Your task to perform on an android device: Search for sushi restaurants on Maps Image 0: 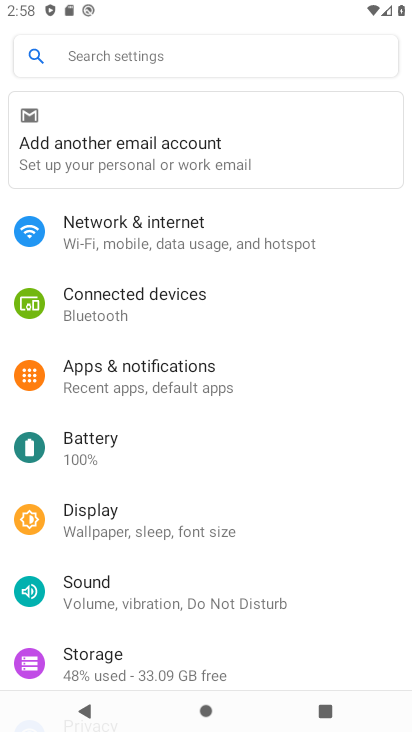
Step 0: drag from (144, 597) to (156, 295)
Your task to perform on an android device: Search for sushi restaurants on Maps Image 1: 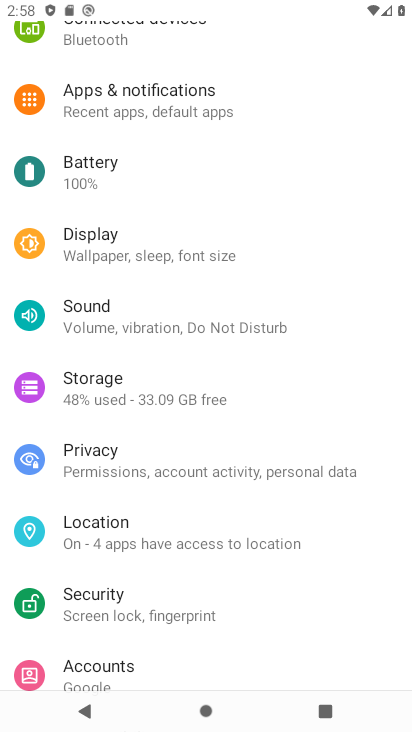
Step 1: press home button
Your task to perform on an android device: Search for sushi restaurants on Maps Image 2: 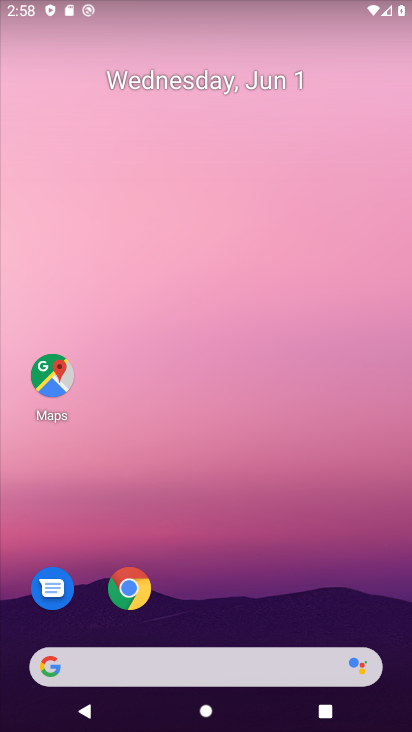
Step 2: drag from (290, 478) to (257, 119)
Your task to perform on an android device: Search for sushi restaurants on Maps Image 3: 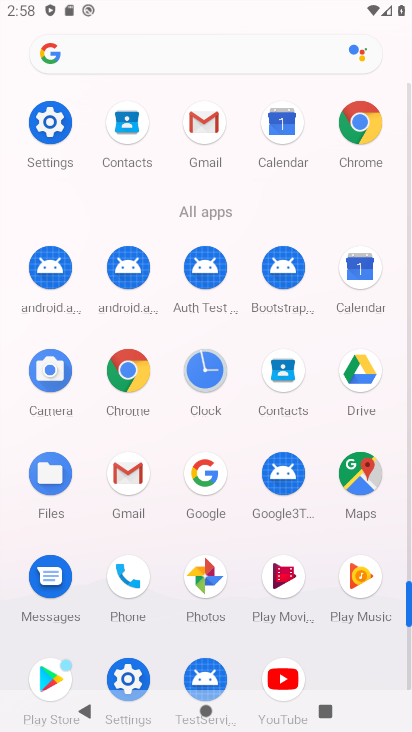
Step 3: click (370, 467)
Your task to perform on an android device: Search for sushi restaurants on Maps Image 4: 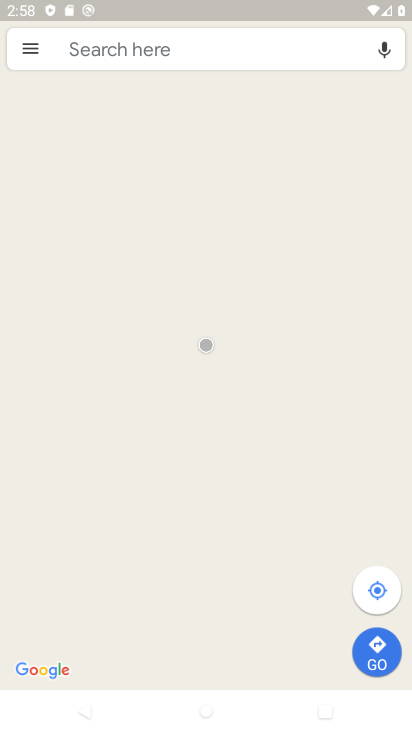
Step 4: click (163, 55)
Your task to perform on an android device: Search for sushi restaurants on Maps Image 5: 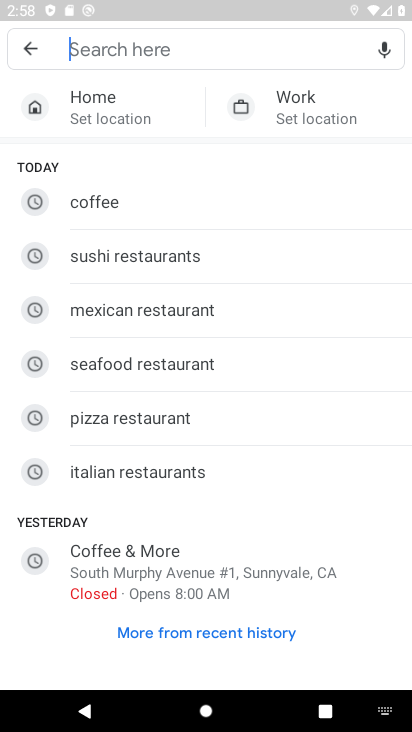
Step 5: type "sushi"
Your task to perform on an android device: Search for sushi restaurants on Maps Image 6: 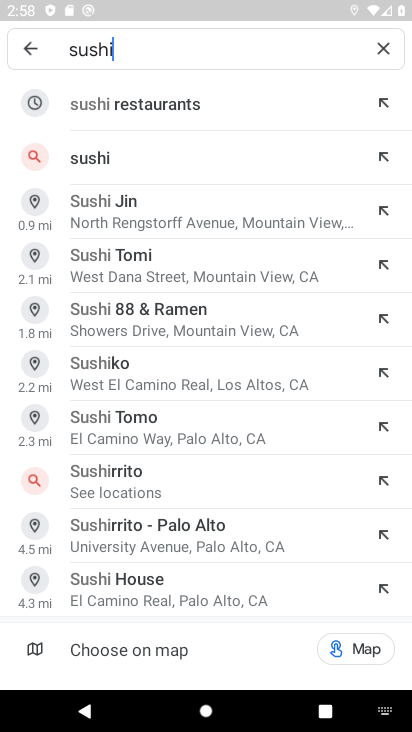
Step 6: click (142, 110)
Your task to perform on an android device: Search for sushi restaurants on Maps Image 7: 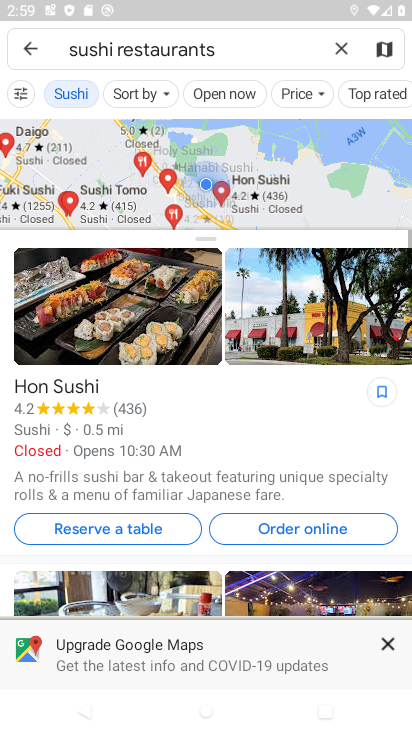
Step 7: task complete